Your task to perform on an android device: toggle show notifications on the lock screen Image 0: 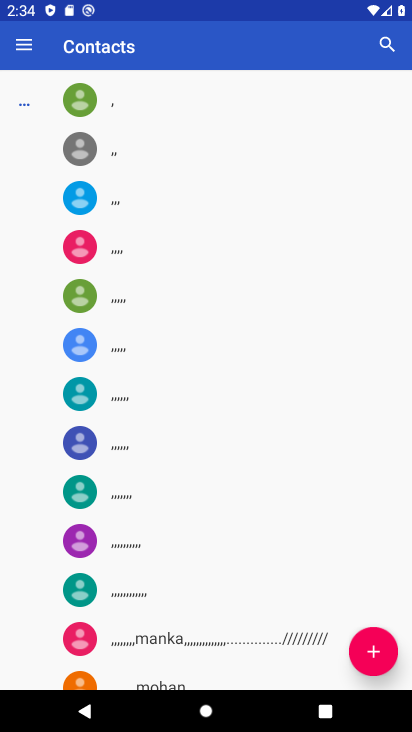
Step 0: press home button
Your task to perform on an android device: toggle show notifications on the lock screen Image 1: 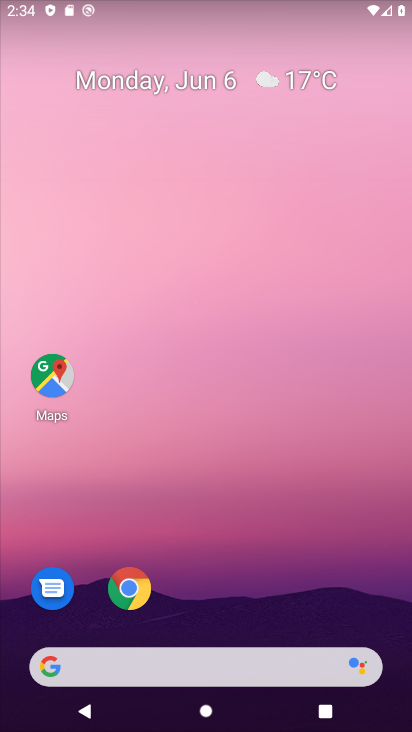
Step 1: drag from (217, 658) to (340, 308)
Your task to perform on an android device: toggle show notifications on the lock screen Image 2: 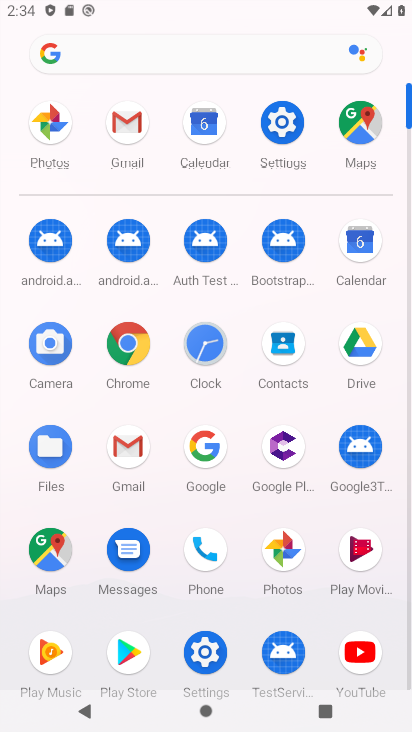
Step 2: click (366, 344)
Your task to perform on an android device: toggle show notifications on the lock screen Image 3: 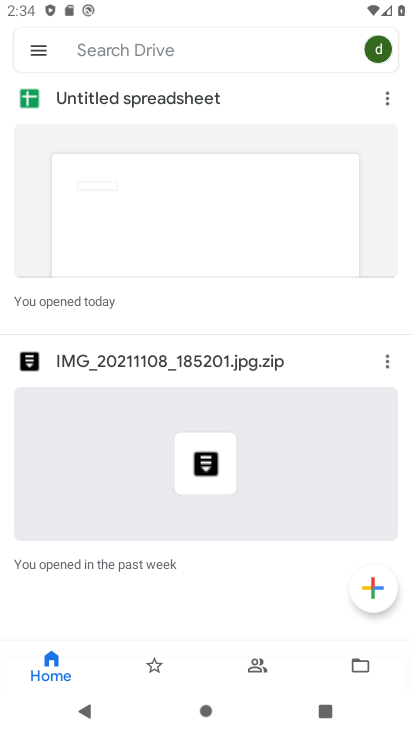
Step 3: click (366, 344)
Your task to perform on an android device: toggle show notifications on the lock screen Image 4: 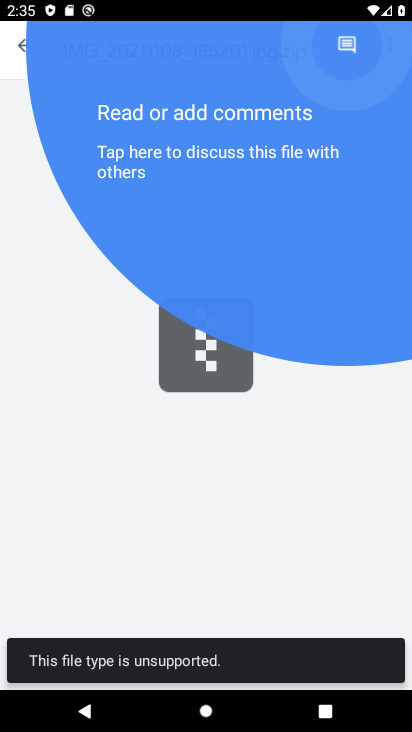
Step 4: press back button
Your task to perform on an android device: toggle show notifications on the lock screen Image 5: 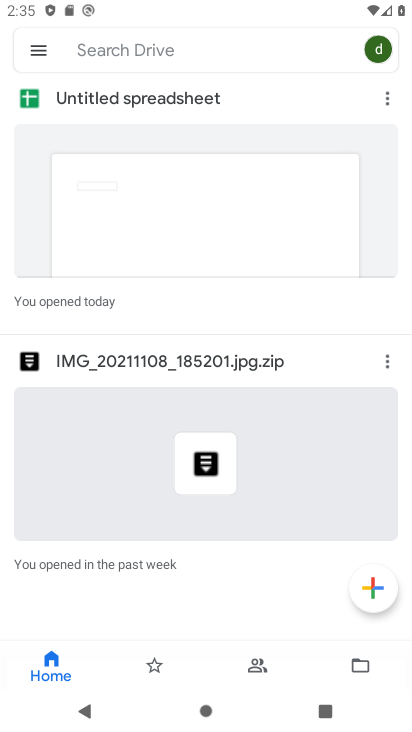
Step 5: press home button
Your task to perform on an android device: toggle show notifications on the lock screen Image 6: 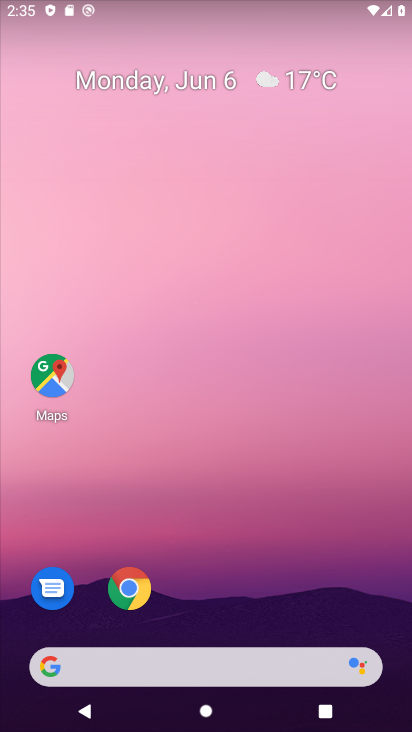
Step 6: drag from (203, 652) to (246, 141)
Your task to perform on an android device: toggle show notifications on the lock screen Image 7: 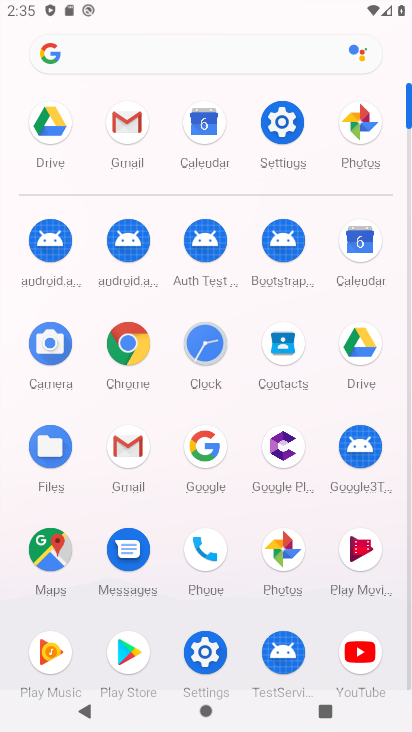
Step 7: click (293, 122)
Your task to perform on an android device: toggle show notifications on the lock screen Image 8: 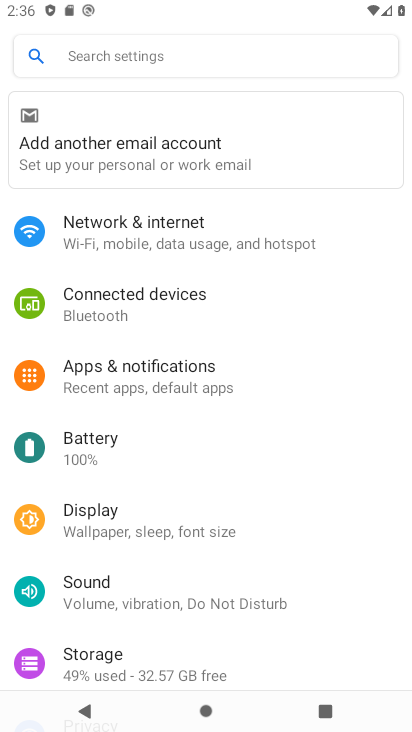
Step 8: click (206, 391)
Your task to perform on an android device: toggle show notifications on the lock screen Image 9: 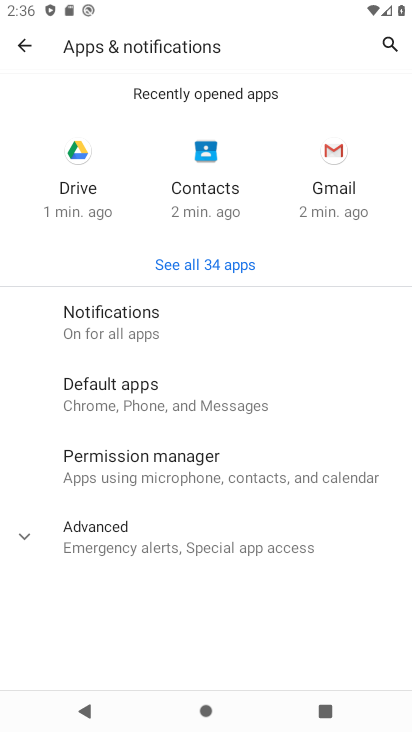
Step 9: click (152, 320)
Your task to perform on an android device: toggle show notifications on the lock screen Image 10: 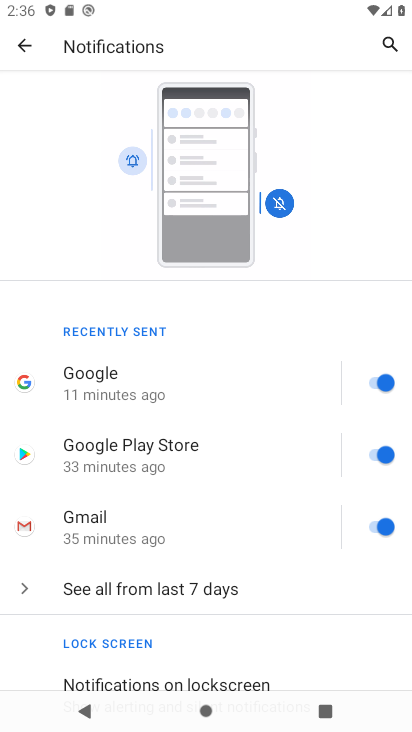
Step 10: drag from (125, 533) to (189, 126)
Your task to perform on an android device: toggle show notifications on the lock screen Image 11: 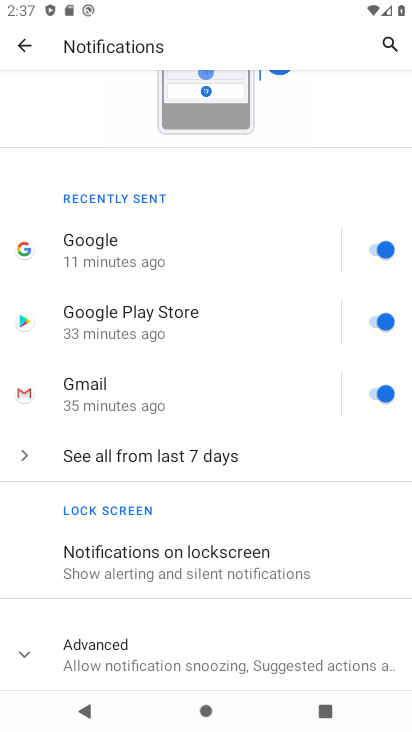
Step 11: click (187, 550)
Your task to perform on an android device: toggle show notifications on the lock screen Image 12: 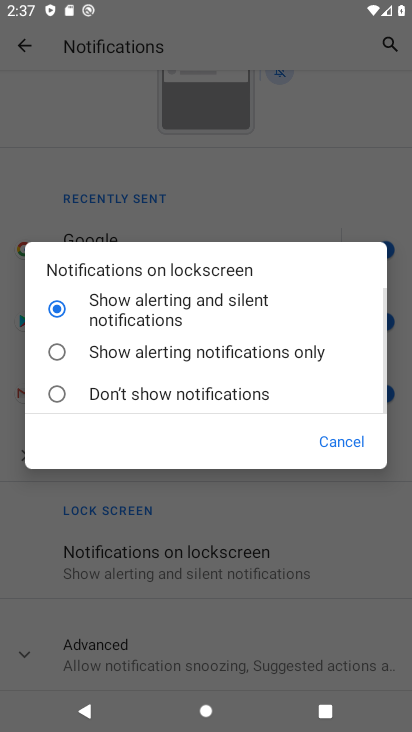
Step 12: click (228, 320)
Your task to perform on an android device: toggle show notifications on the lock screen Image 13: 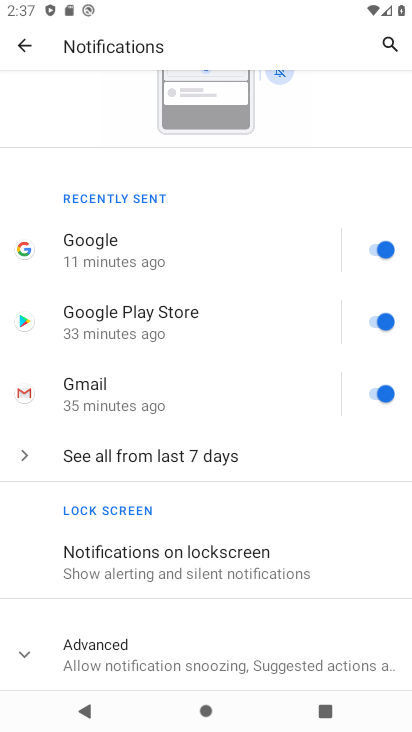
Step 13: task complete